Your task to perform on an android device: delete the emails in spam in the gmail app Image 0: 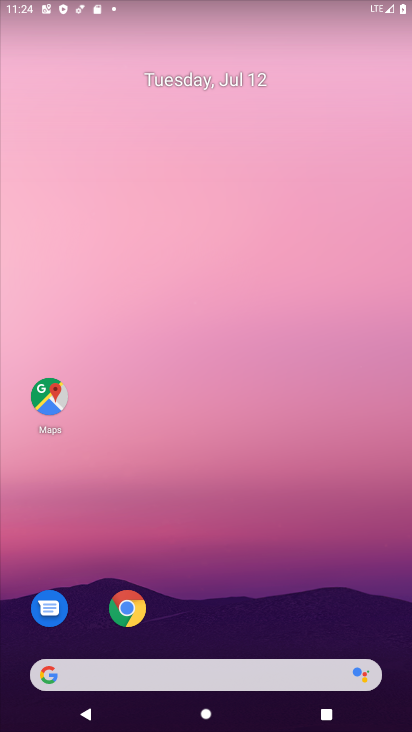
Step 0: drag from (193, 633) to (228, 51)
Your task to perform on an android device: delete the emails in spam in the gmail app Image 1: 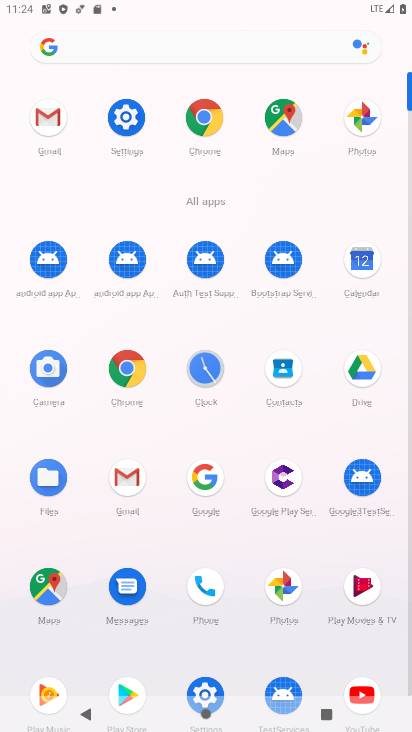
Step 1: click (61, 124)
Your task to perform on an android device: delete the emails in spam in the gmail app Image 2: 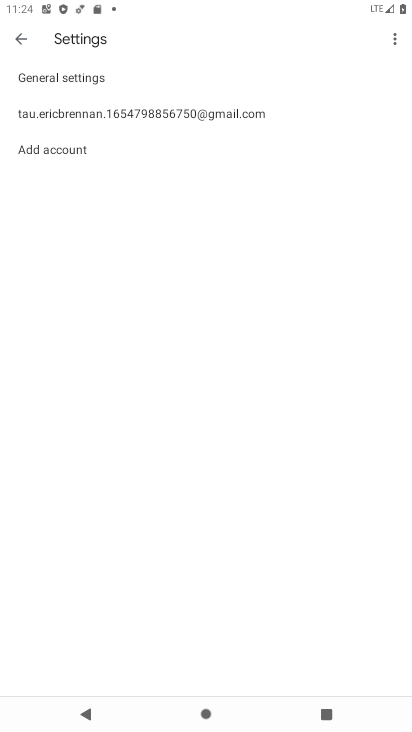
Step 2: click (31, 37)
Your task to perform on an android device: delete the emails in spam in the gmail app Image 3: 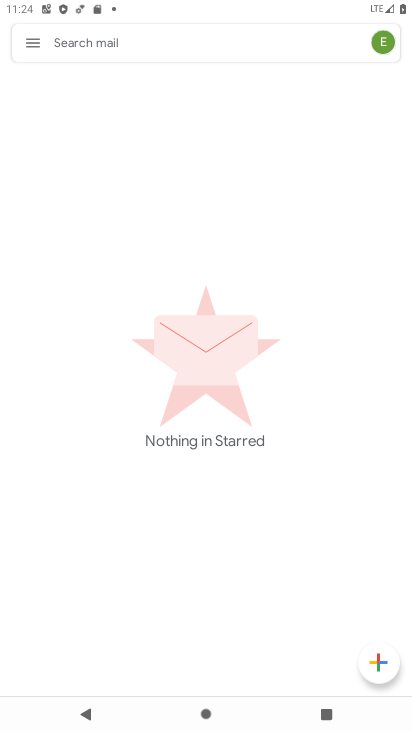
Step 3: click (31, 37)
Your task to perform on an android device: delete the emails in spam in the gmail app Image 4: 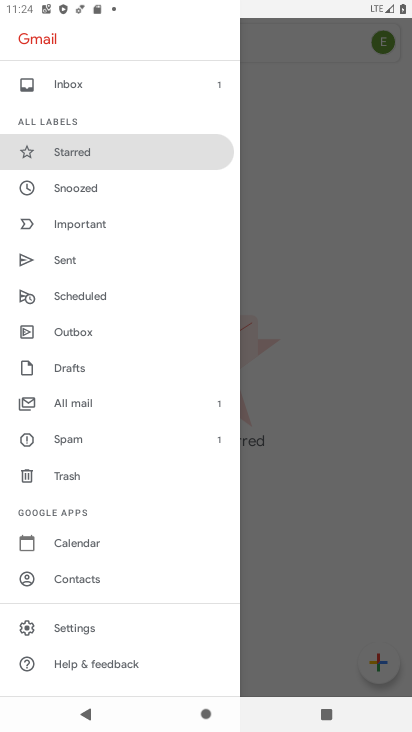
Step 4: click (80, 442)
Your task to perform on an android device: delete the emails in spam in the gmail app Image 5: 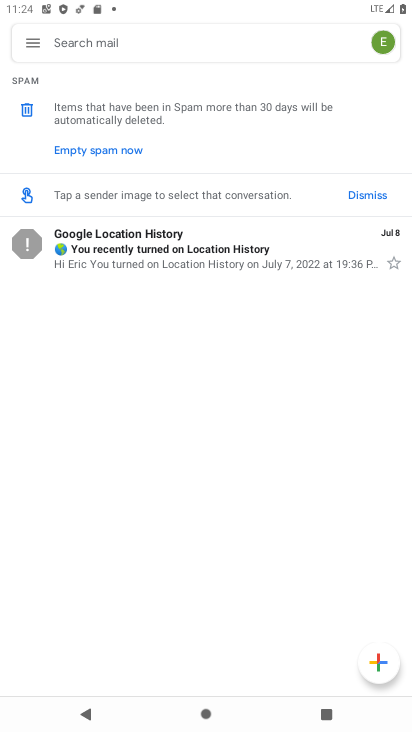
Step 5: click (30, 244)
Your task to perform on an android device: delete the emails in spam in the gmail app Image 6: 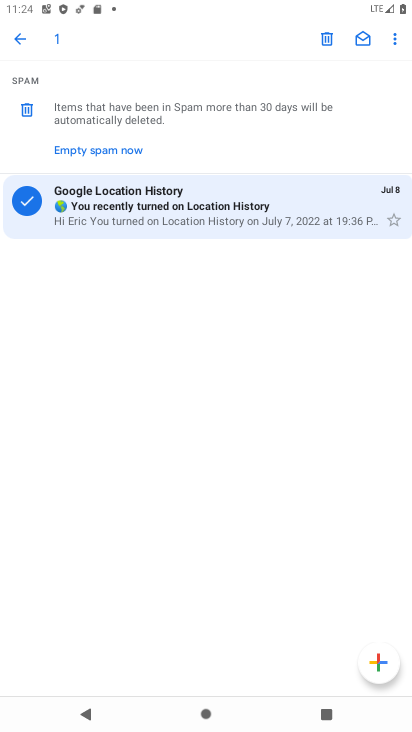
Step 6: click (124, 152)
Your task to perform on an android device: delete the emails in spam in the gmail app Image 7: 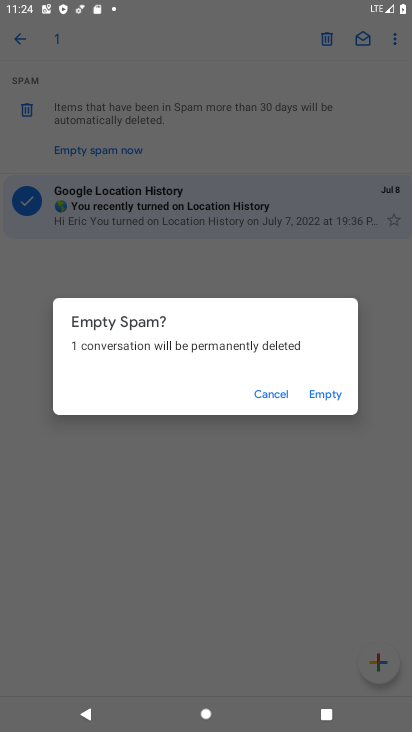
Step 7: click (313, 398)
Your task to perform on an android device: delete the emails in spam in the gmail app Image 8: 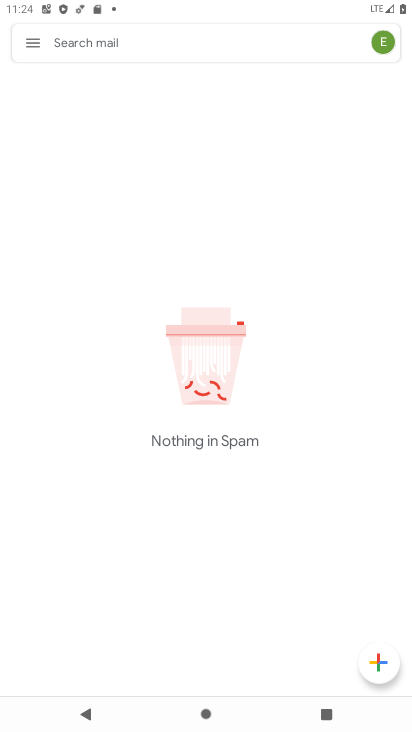
Step 8: task complete